Your task to perform on an android device: toggle data saver in the chrome app Image 0: 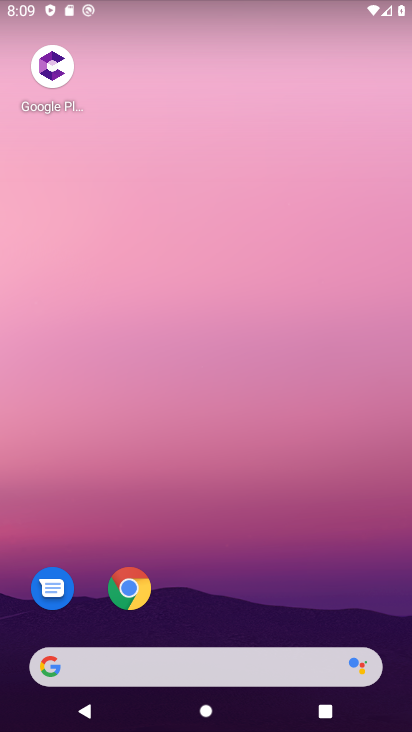
Step 0: click (139, 590)
Your task to perform on an android device: toggle data saver in the chrome app Image 1: 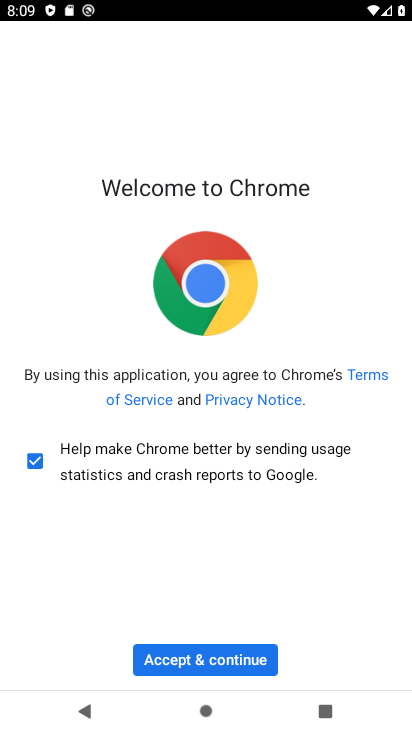
Step 1: click (207, 661)
Your task to perform on an android device: toggle data saver in the chrome app Image 2: 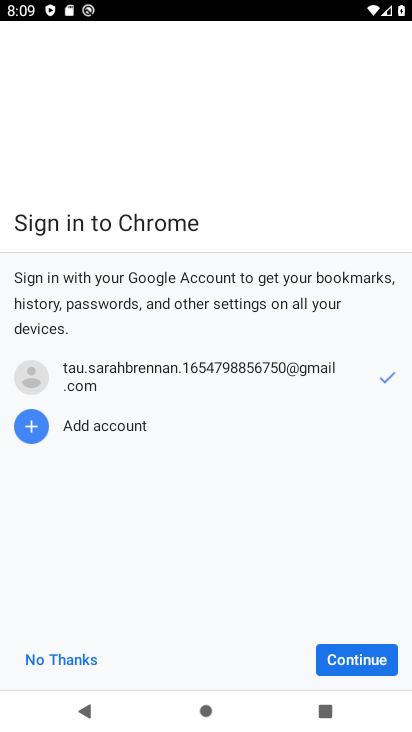
Step 2: click (346, 656)
Your task to perform on an android device: toggle data saver in the chrome app Image 3: 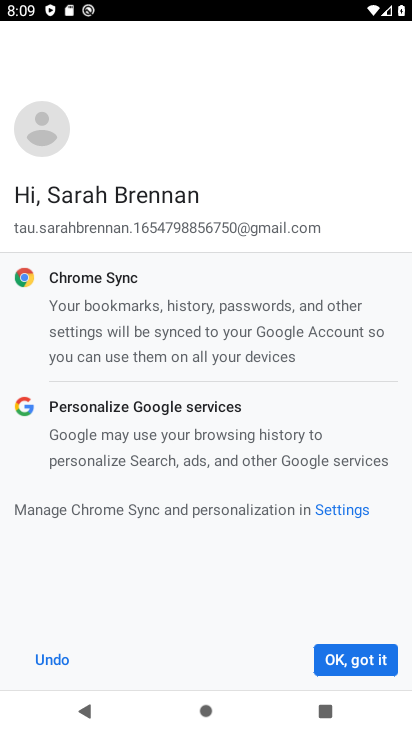
Step 3: click (346, 656)
Your task to perform on an android device: toggle data saver in the chrome app Image 4: 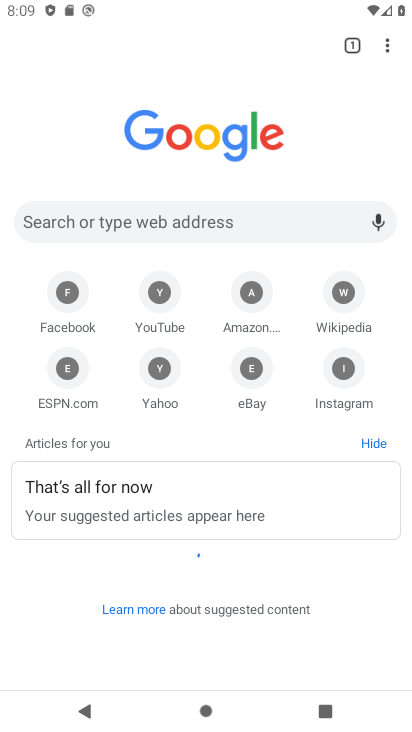
Step 4: click (391, 43)
Your task to perform on an android device: toggle data saver in the chrome app Image 5: 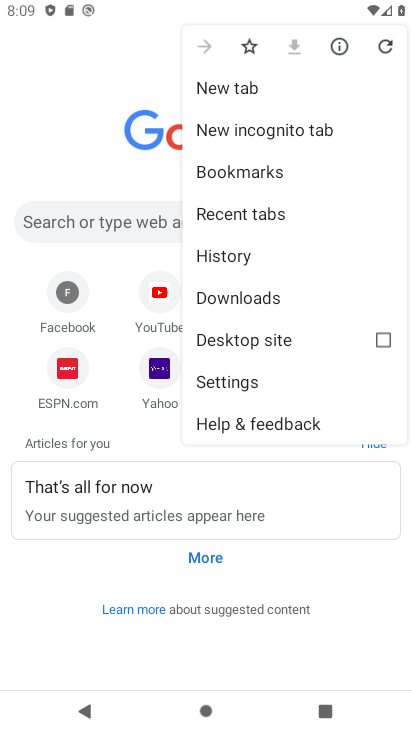
Step 5: click (238, 393)
Your task to perform on an android device: toggle data saver in the chrome app Image 6: 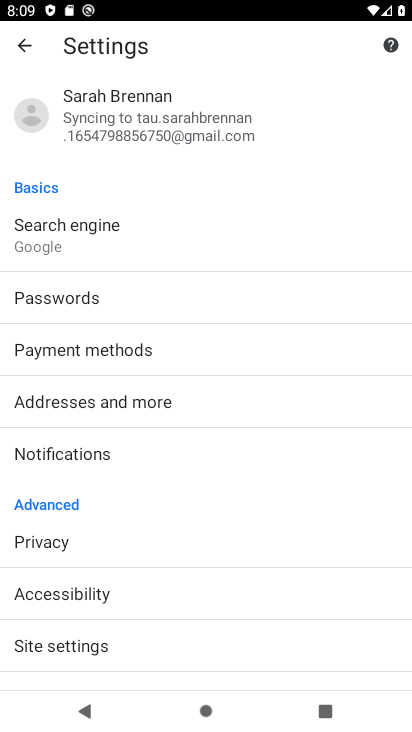
Step 6: drag from (169, 598) to (166, 413)
Your task to perform on an android device: toggle data saver in the chrome app Image 7: 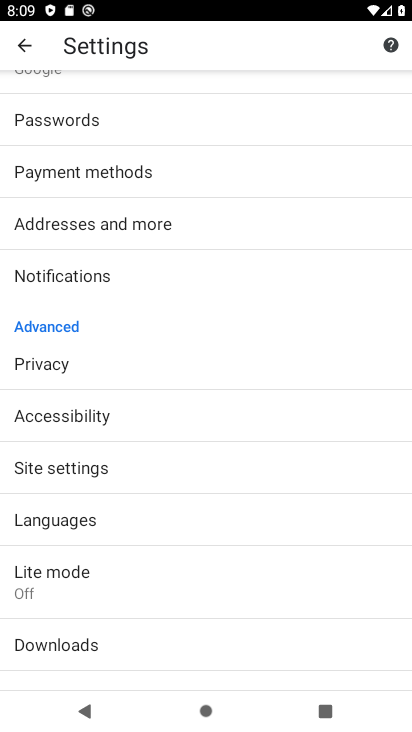
Step 7: click (86, 572)
Your task to perform on an android device: toggle data saver in the chrome app Image 8: 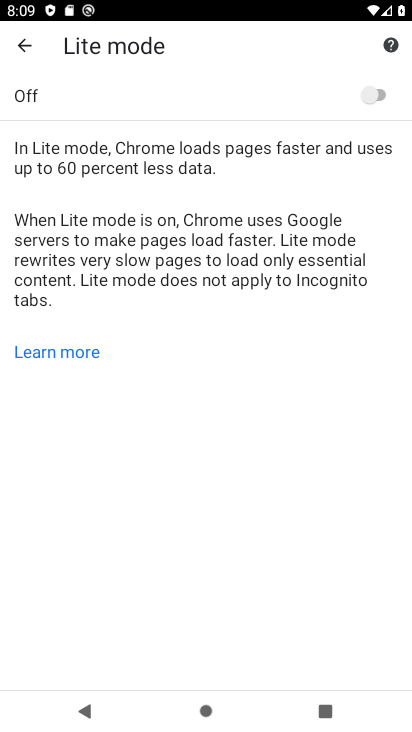
Step 8: click (382, 95)
Your task to perform on an android device: toggle data saver in the chrome app Image 9: 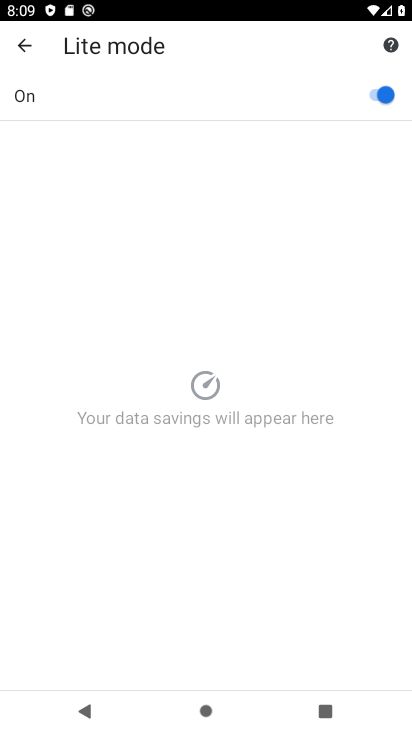
Step 9: task complete